Your task to perform on an android device: turn off picture-in-picture Image 0: 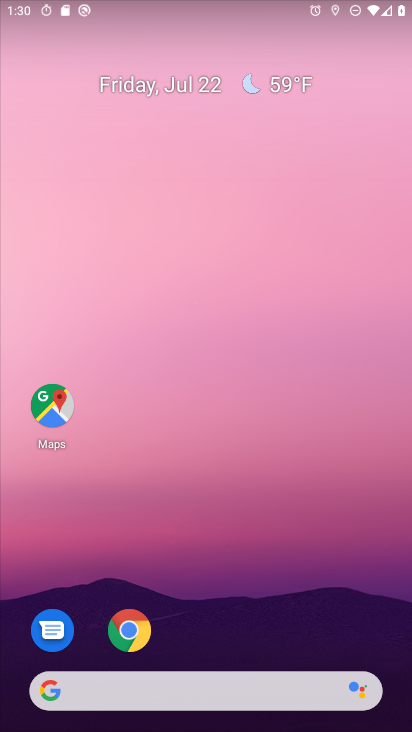
Step 0: press home button
Your task to perform on an android device: turn off picture-in-picture Image 1: 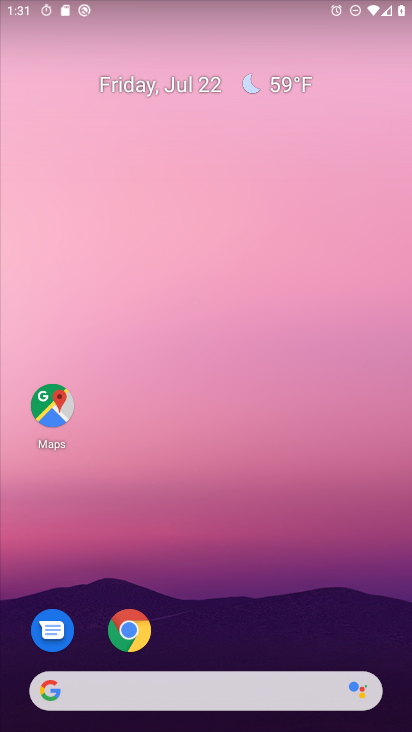
Step 1: drag from (217, 637) to (205, 157)
Your task to perform on an android device: turn off picture-in-picture Image 2: 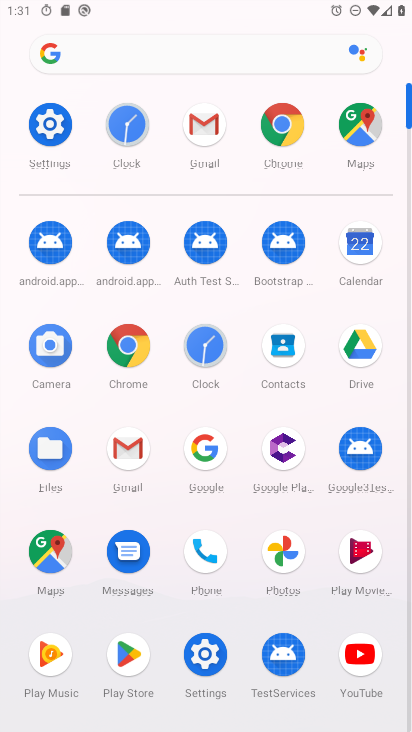
Step 2: click (281, 134)
Your task to perform on an android device: turn off picture-in-picture Image 3: 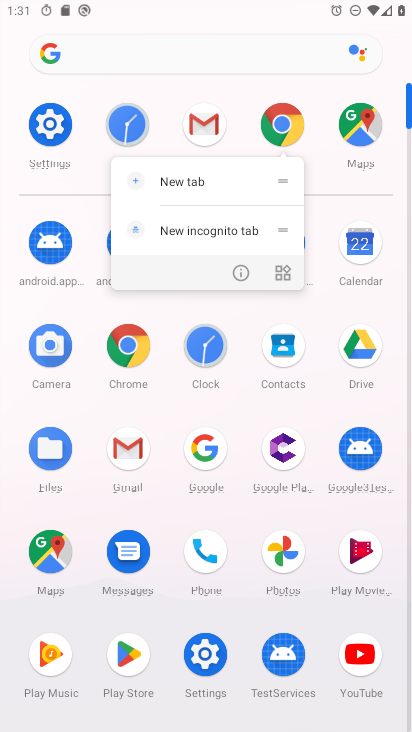
Step 3: click (244, 275)
Your task to perform on an android device: turn off picture-in-picture Image 4: 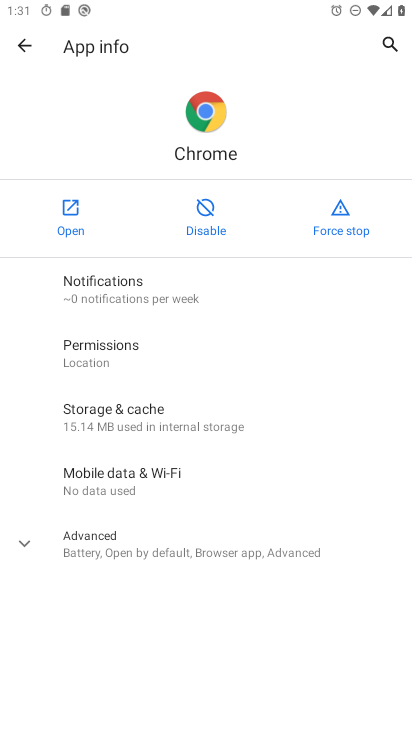
Step 4: click (72, 549)
Your task to perform on an android device: turn off picture-in-picture Image 5: 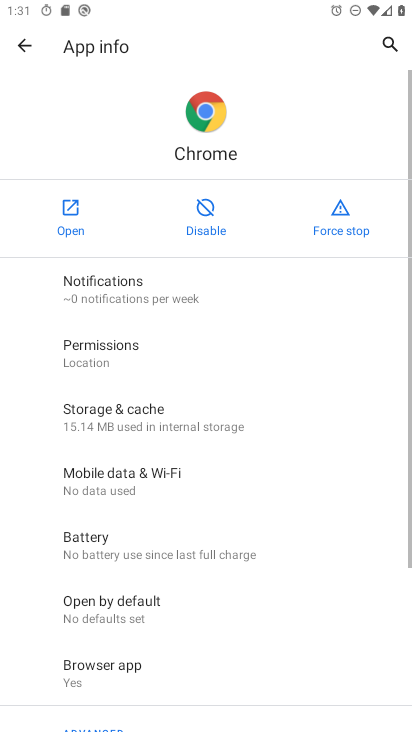
Step 5: drag from (292, 636) to (322, 145)
Your task to perform on an android device: turn off picture-in-picture Image 6: 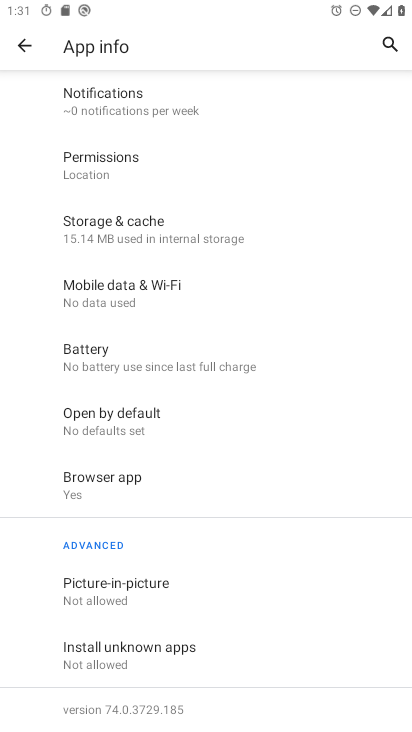
Step 6: click (105, 584)
Your task to perform on an android device: turn off picture-in-picture Image 7: 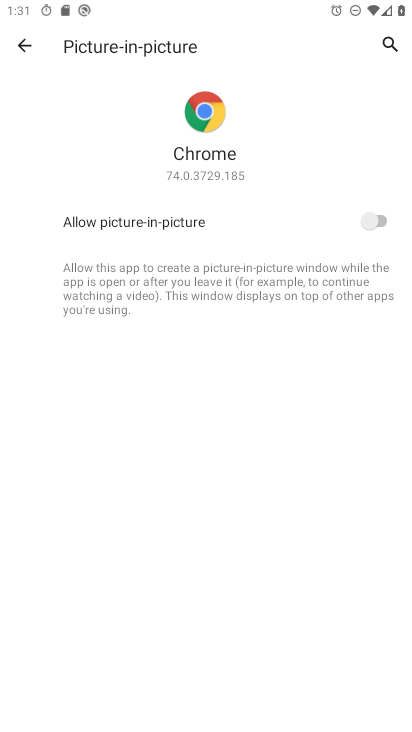
Step 7: task complete